Your task to perform on an android device: turn pop-ups on in chrome Image 0: 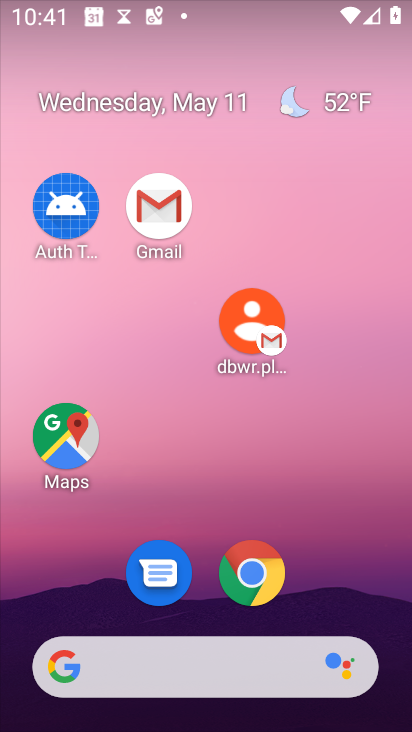
Step 0: drag from (372, 576) to (227, 147)
Your task to perform on an android device: turn pop-ups on in chrome Image 1: 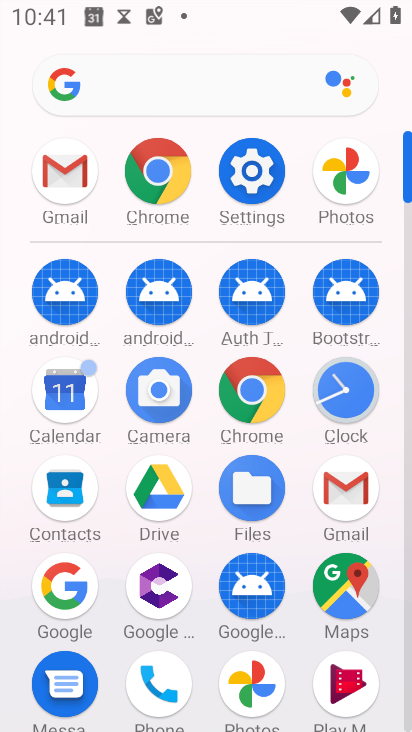
Step 1: click (156, 185)
Your task to perform on an android device: turn pop-ups on in chrome Image 2: 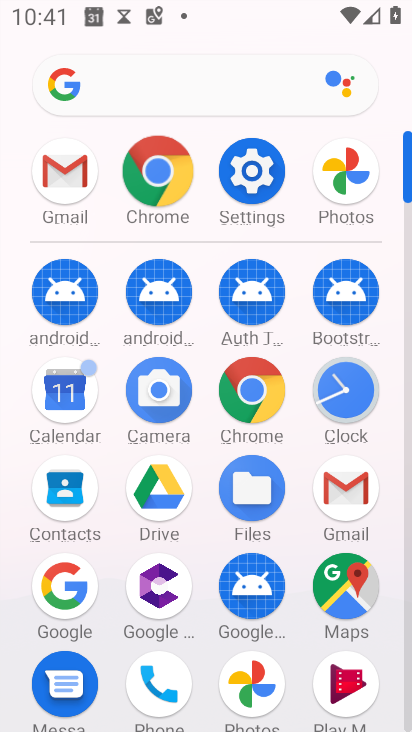
Step 2: click (157, 183)
Your task to perform on an android device: turn pop-ups on in chrome Image 3: 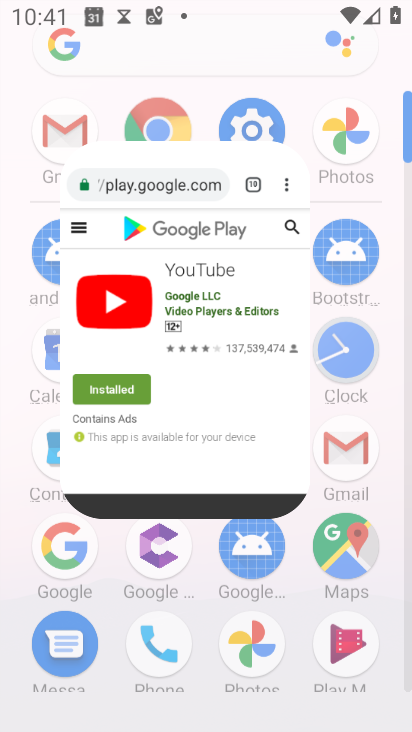
Step 3: click (157, 183)
Your task to perform on an android device: turn pop-ups on in chrome Image 4: 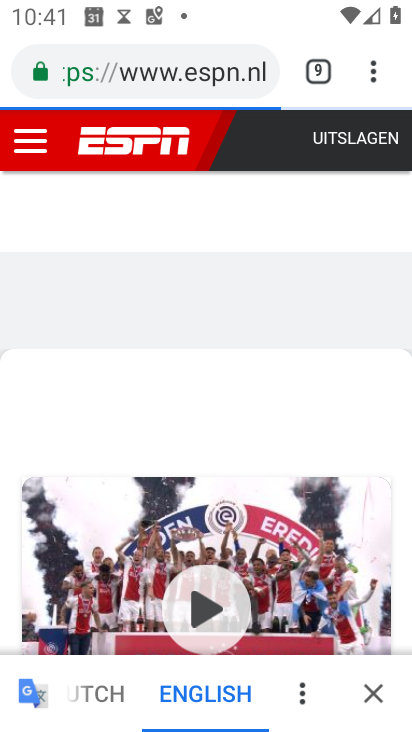
Step 4: drag from (375, 72) to (112, 567)
Your task to perform on an android device: turn pop-ups on in chrome Image 5: 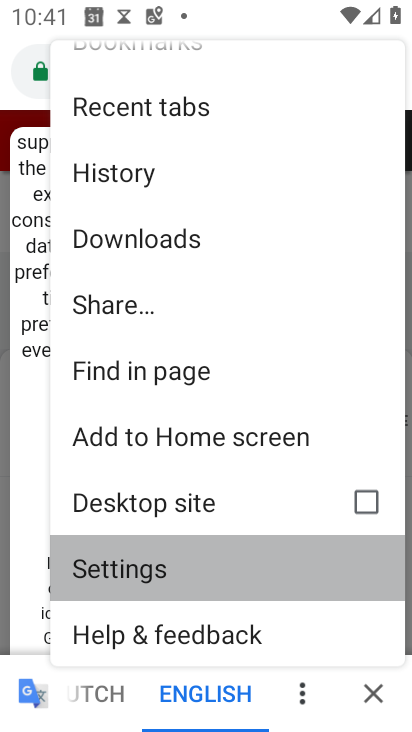
Step 5: click (113, 567)
Your task to perform on an android device: turn pop-ups on in chrome Image 6: 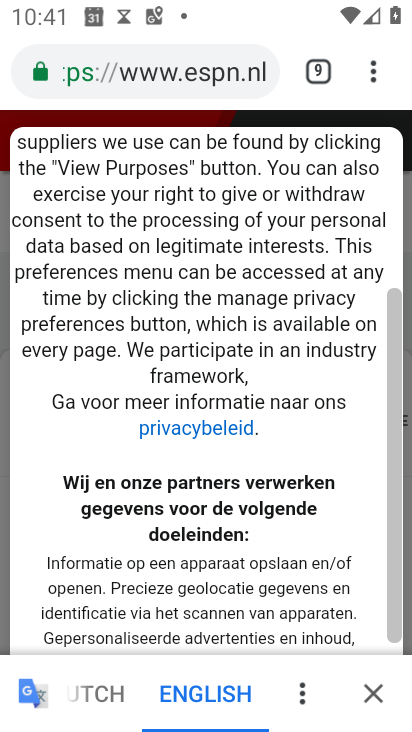
Step 6: click (114, 566)
Your task to perform on an android device: turn pop-ups on in chrome Image 7: 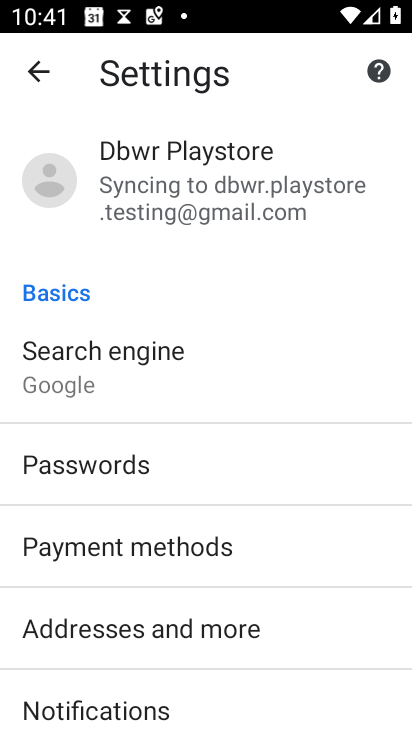
Step 7: drag from (179, 484) to (198, 91)
Your task to perform on an android device: turn pop-ups on in chrome Image 8: 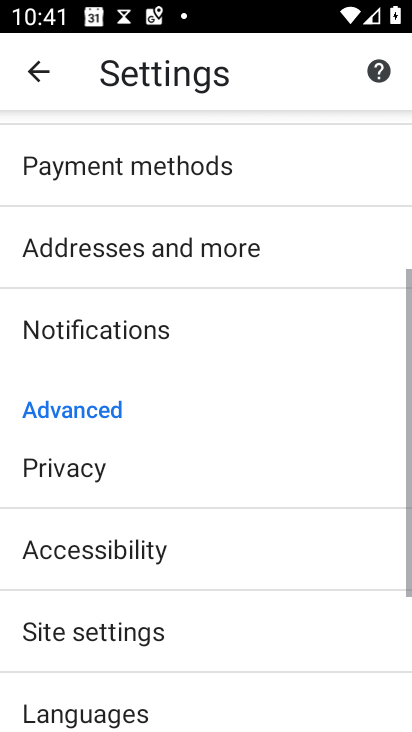
Step 8: drag from (190, 459) to (201, 202)
Your task to perform on an android device: turn pop-ups on in chrome Image 9: 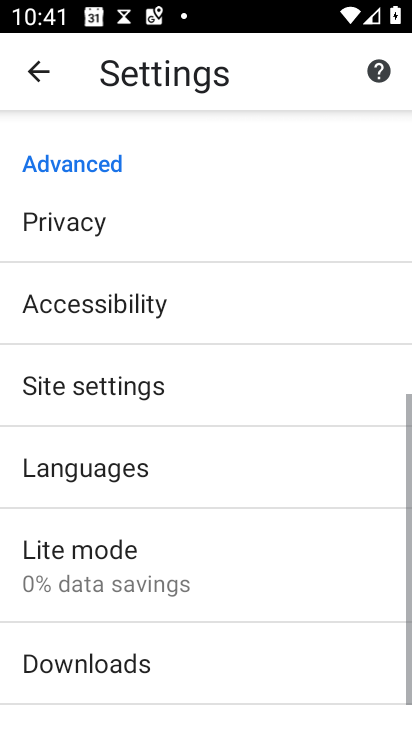
Step 9: drag from (159, 513) to (171, 192)
Your task to perform on an android device: turn pop-ups on in chrome Image 10: 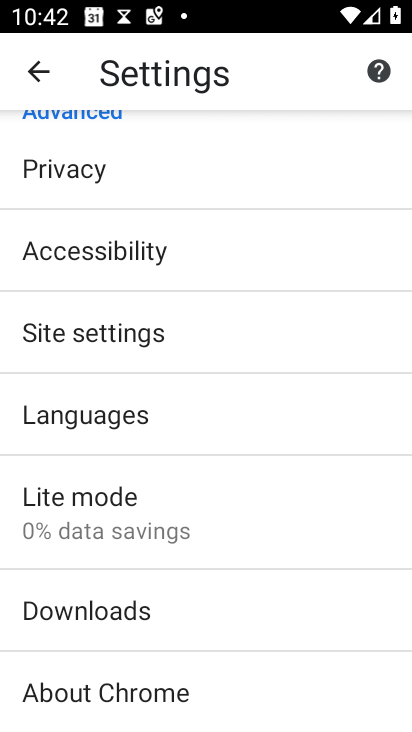
Step 10: click (72, 332)
Your task to perform on an android device: turn pop-ups on in chrome Image 11: 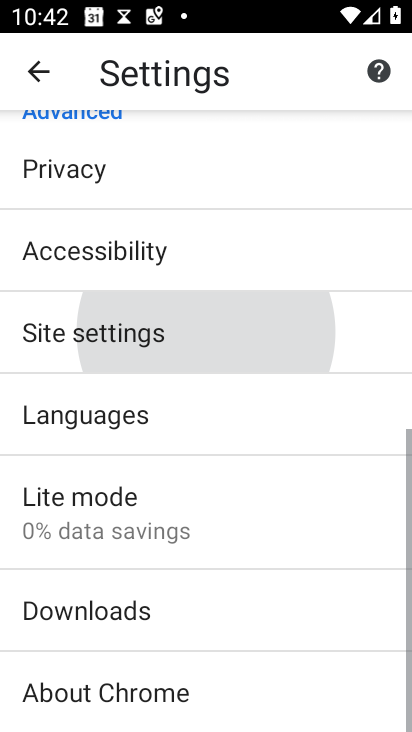
Step 11: click (72, 332)
Your task to perform on an android device: turn pop-ups on in chrome Image 12: 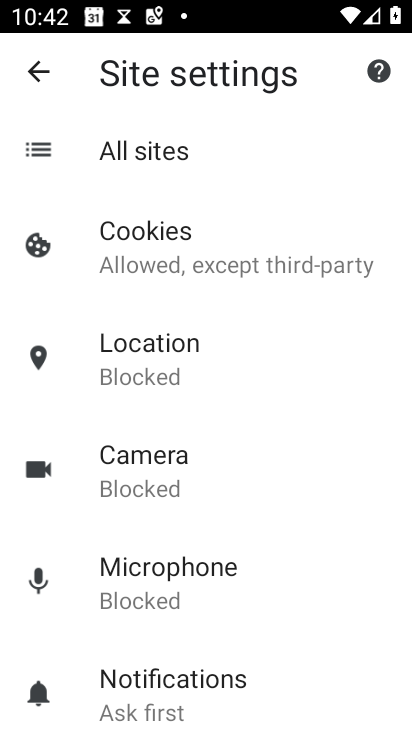
Step 12: drag from (199, 558) to (177, 201)
Your task to perform on an android device: turn pop-ups on in chrome Image 13: 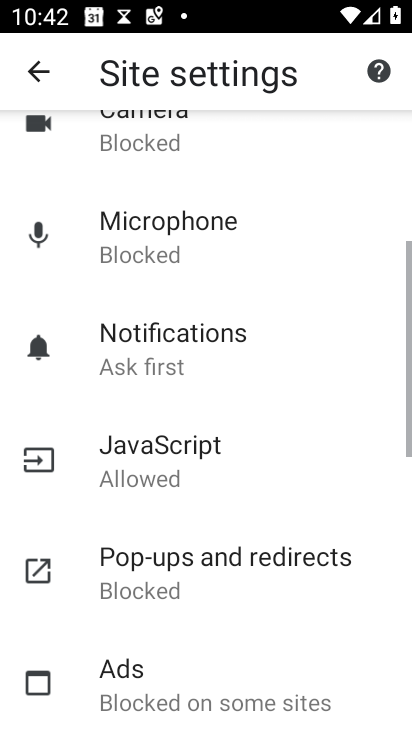
Step 13: drag from (190, 434) to (236, 241)
Your task to perform on an android device: turn pop-ups on in chrome Image 14: 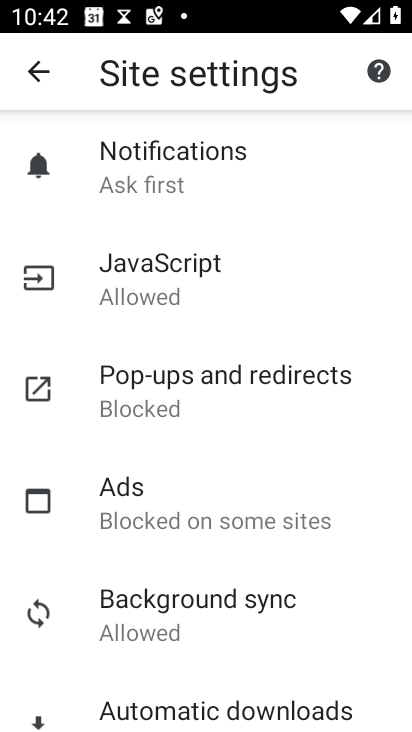
Step 14: click (154, 369)
Your task to perform on an android device: turn pop-ups on in chrome Image 15: 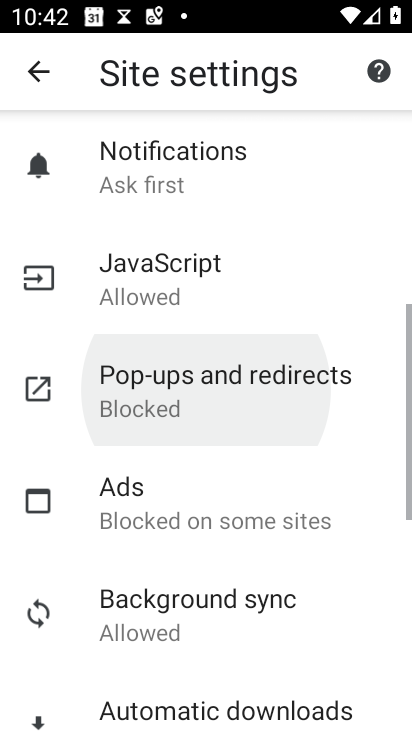
Step 15: click (155, 370)
Your task to perform on an android device: turn pop-ups on in chrome Image 16: 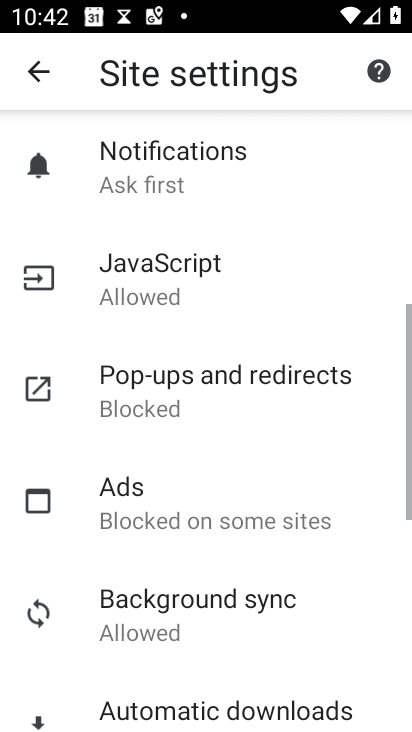
Step 16: click (155, 370)
Your task to perform on an android device: turn pop-ups on in chrome Image 17: 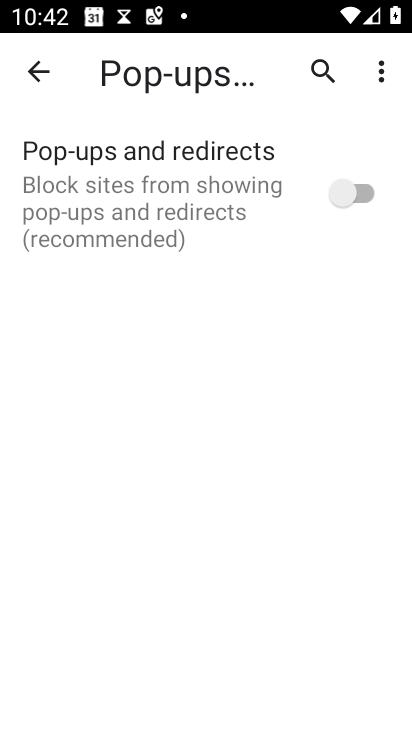
Step 17: click (341, 190)
Your task to perform on an android device: turn pop-ups on in chrome Image 18: 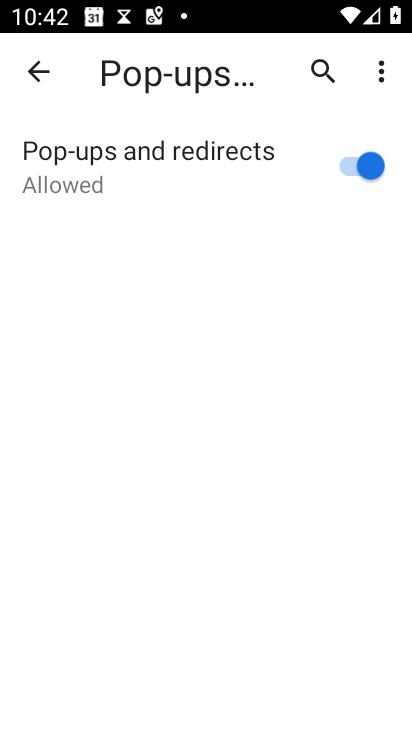
Step 18: task complete